Your task to perform on an android device: Clear the shopping cart on newegg. Search for "panasonic triple a" on newegg, select the first entry, add it to the cart, then select checkout. Image 0: 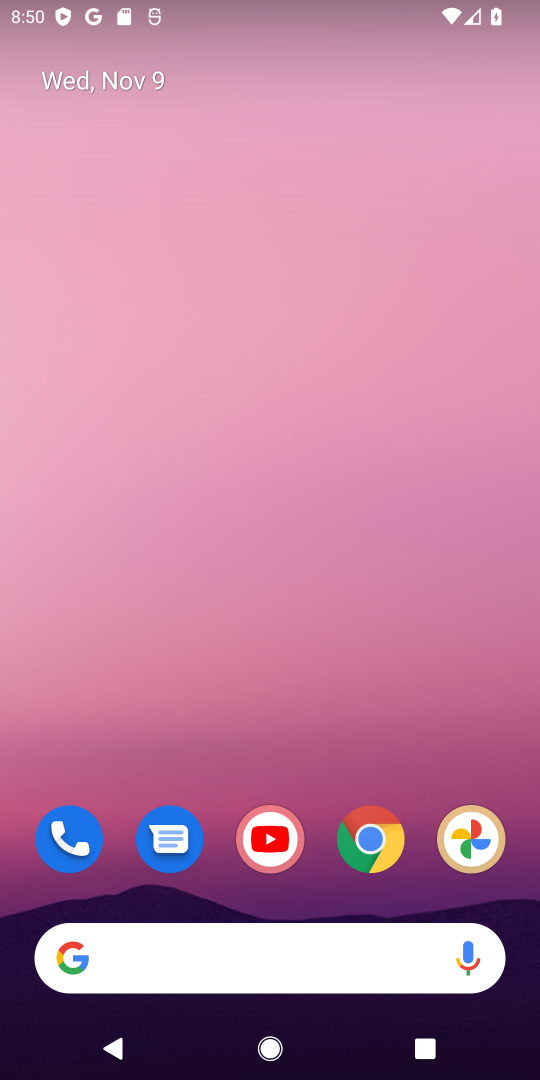
Step 0: drag from (95, 814) to (108, 171)
Your task to perform on an android device: Clear the shopping cart on newegg. Search for "panasonic triple a" on newegg, select the first entry, add it to the cart, then select checkout. Image 1: 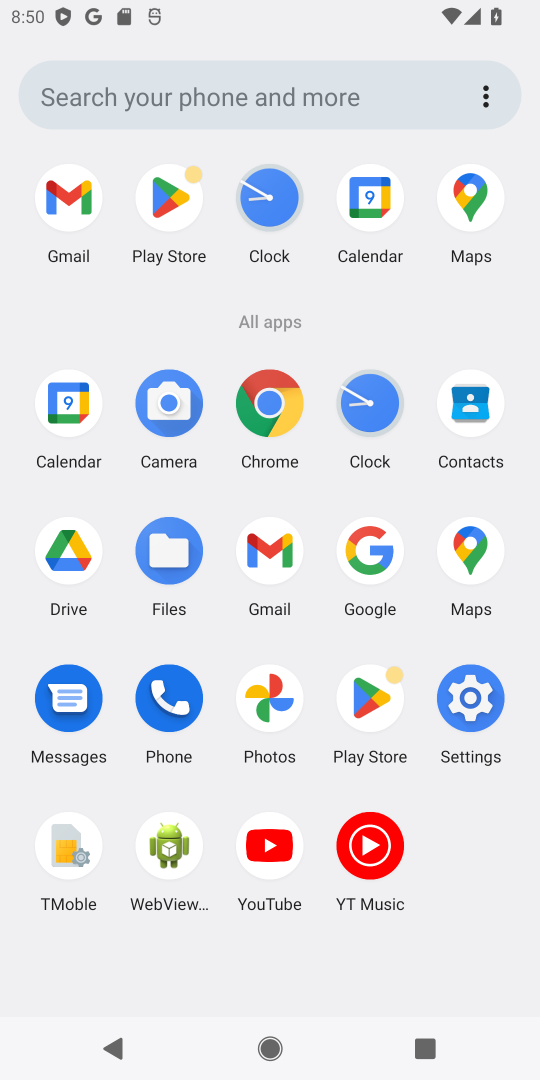
Step 1: click (289, 407)
Your task to perform on an android device: Clear the shopping cart on newegg. Search for "panasonic triple a" on newegg, select the first entry, add it to the cart, then select checkout. Image 2: 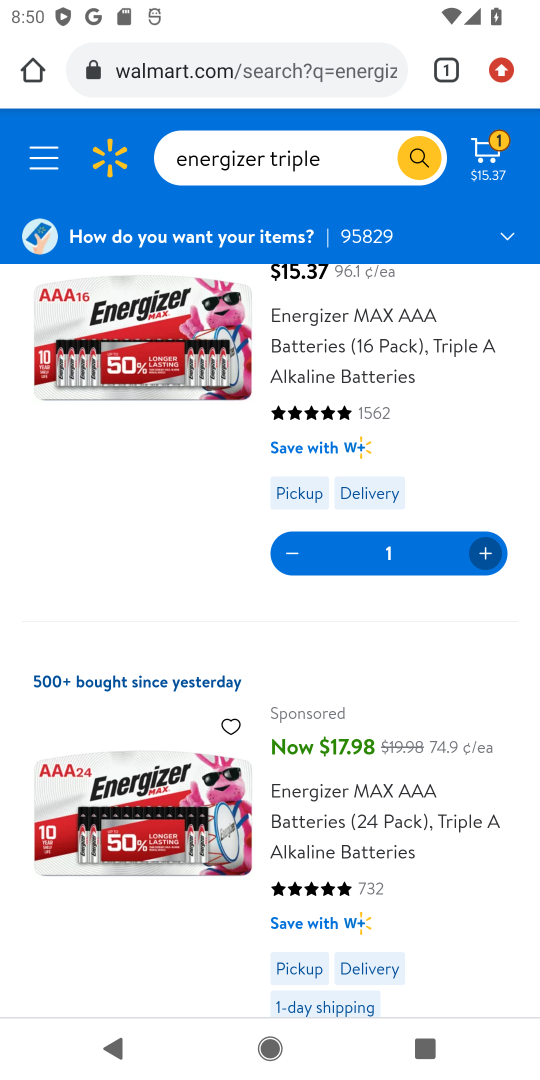
Step 2: click (214, 70)
Your task to perform on an android device: Clear the shopping cart on newegg. Search for "panasonic triple a" on newegg, select the first entry, add it to the cart, then select checkout. Image 3: 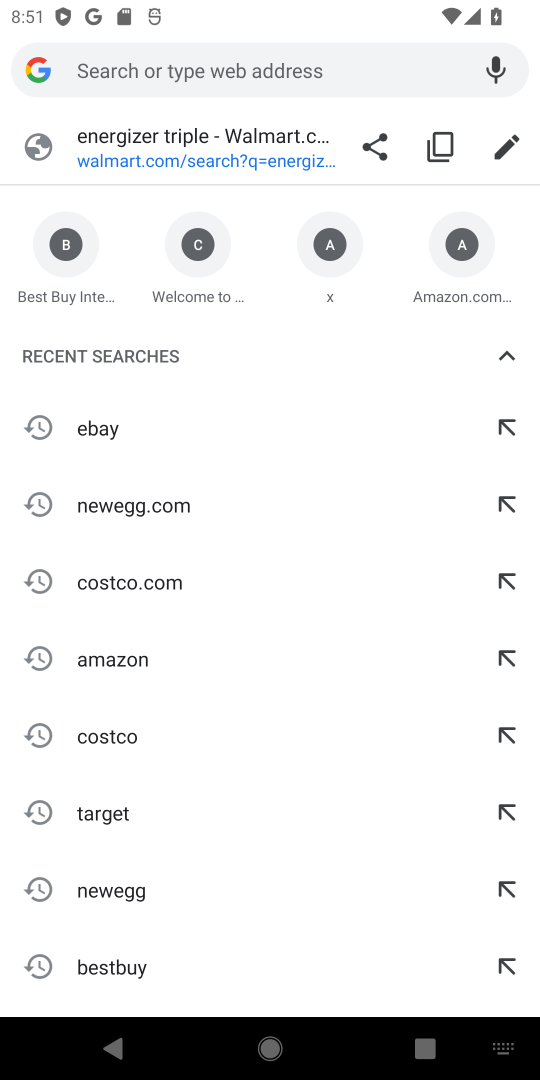
Step 3: type "newegg"
Your task to perform on an android device: Clear the shopping cart on newegg. Search for "panasonic triple a" on newegg, select the first entry, add it to the cart, then select checkout. Image 4: 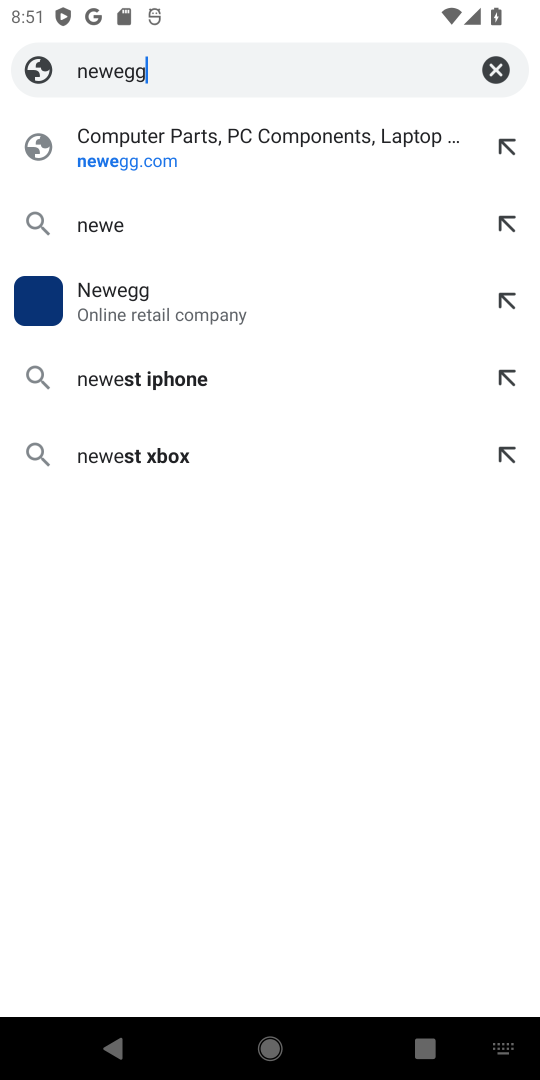
Step 4: press enter
Your task to perform on an android device: Clear the shopping cart on newegg. Search for "panasonic triple a" on newegg, select the first entry, add it to the cart, then select checkout. Image 5: 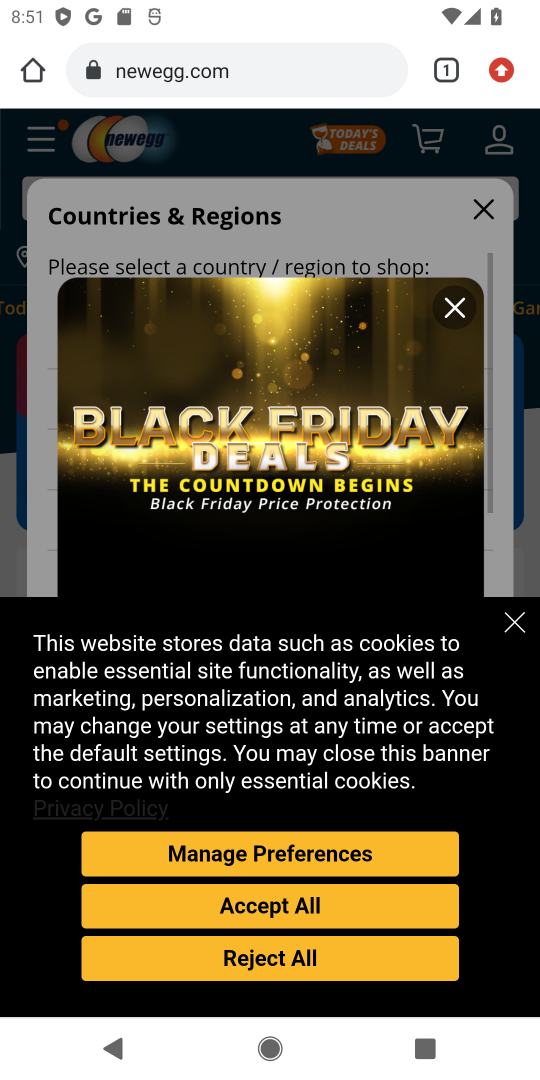
Step 5: click (261, 889)
Your task to perform on an android device: Clear the shopping cart on newegg. Search for "panasonic triple a" on newegg, select the first entry, add it to the cart, then select checkout. Image 6: 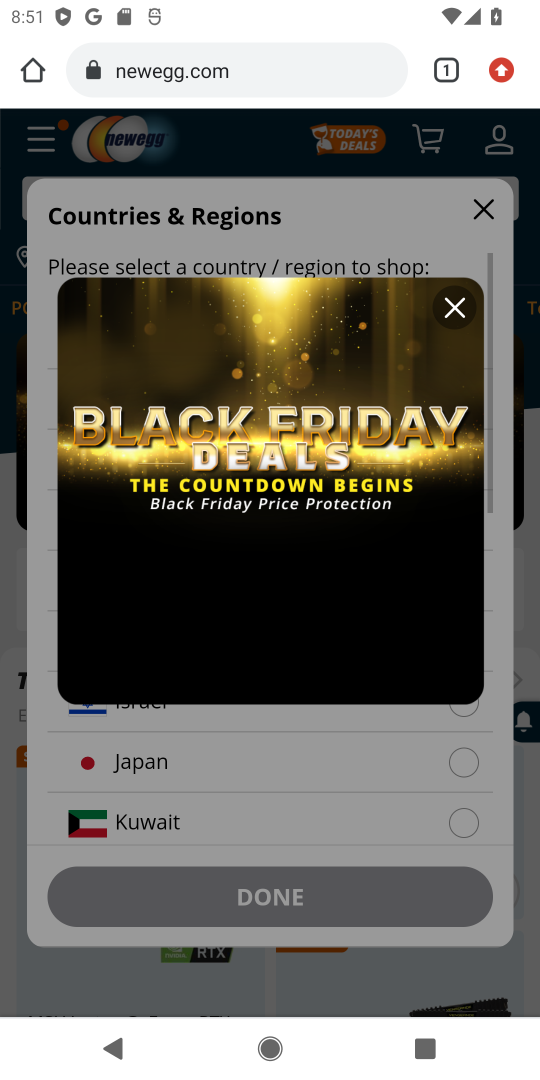
Step 6: click (448, 300)
Your task to perform on an android device: Clear the shopping cart on newegg. Search for "panasonic triple a" on newegg, select the first entry, add it to the cart, then select checkout. Image 7: 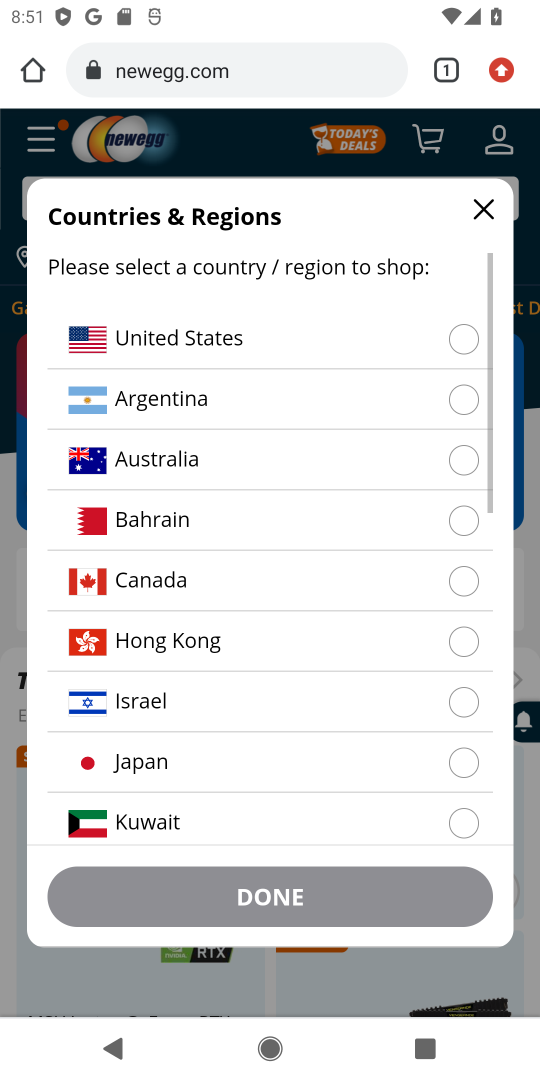
Step 7: click (203, 329)
Your task to perform on an android device: Clear the shopping cart on newegg. Search for "panasonic triple a" on newegg, select the first entry, add it to the cart, then select checkout. Image 8: 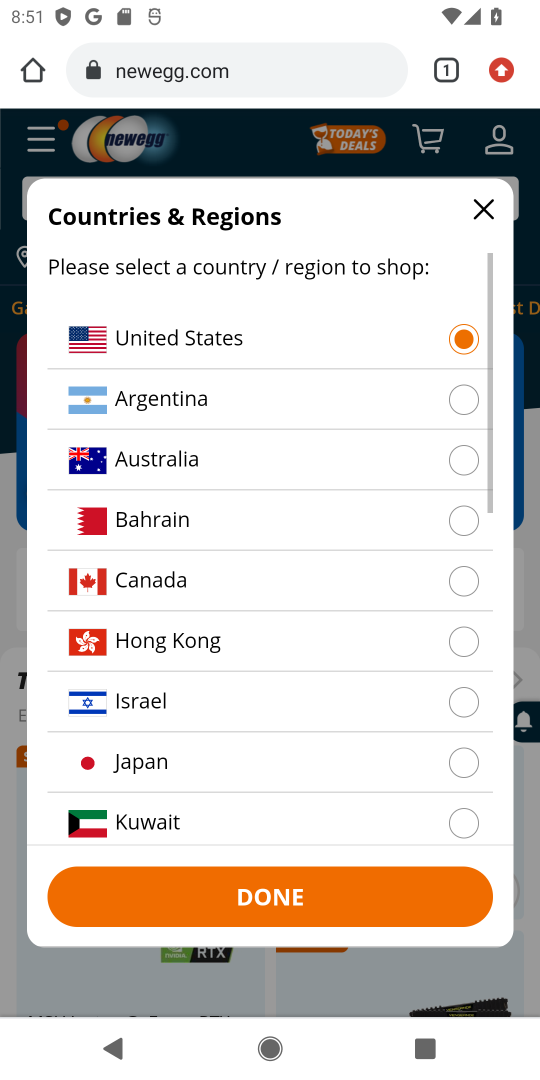
Step 8: click (309, 878)
Your task to perform on an android device: Clear the shopping cart on newegg. Search for "panasonic triple a" on newegg, select the first entry, add it to the cart, then select checkout. Image 9: 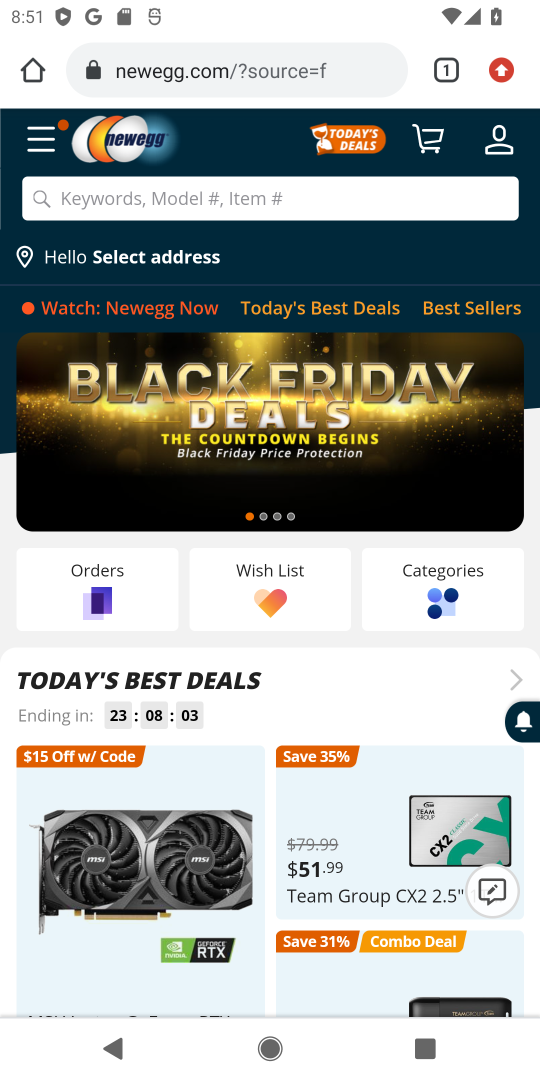
Step 9: click (176, 197)
Your task to perform on an android device: Clear the shopping cart on newegg. Search for "panasonic triple a" on newegg, select the first entry, add it to the cart, then select checkout. Image 10: 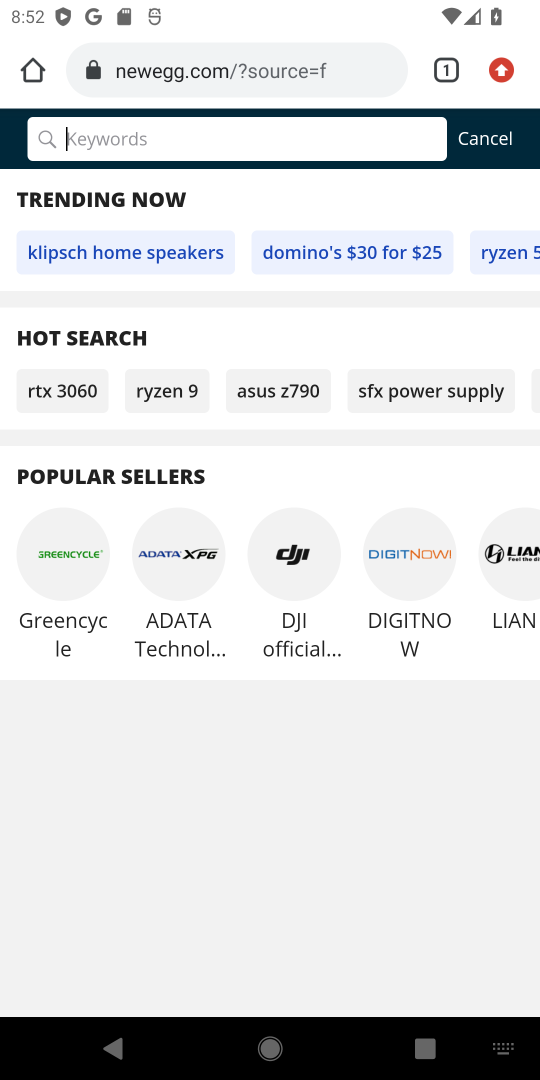
Step 10: type "panasonic triple a"
Your task to perform on an android device: Clear the shopping cart on newegg. Search for "panasonic triple a" on newegg, select the first entry, add it to the cart, then select checkout. Image 11: 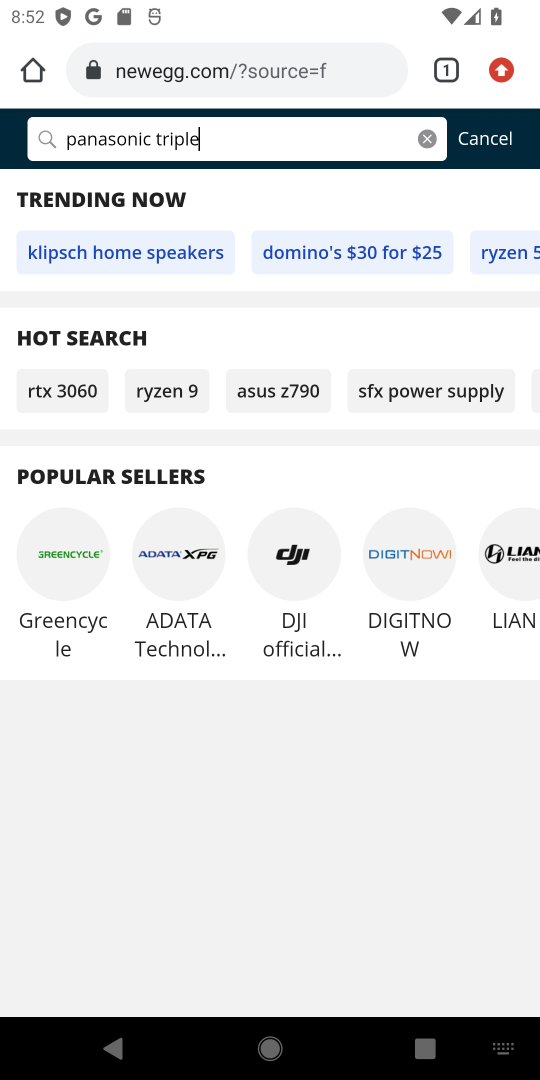
Step 11: press enter
Your task to perform on an android device: Clear the shopping cart on newegg. Search for "panasonic triple a" on newegg, select the first entry, add it to the cart, then select checkout. Image 12: 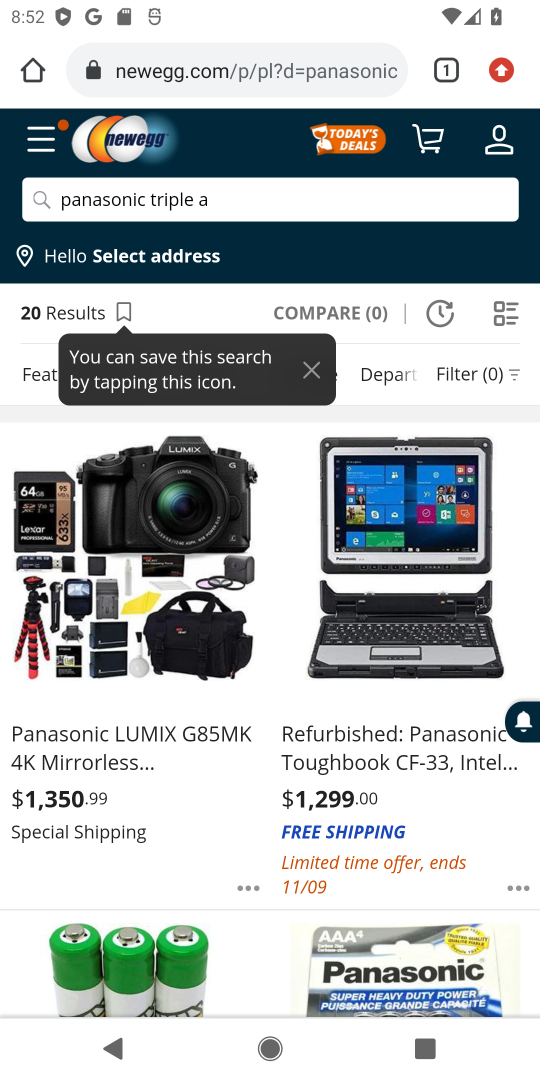
Step 12: click (112, 530)
Your task to perform on an android device: Clear the shopping cart on newegg. Search for "panasonic triple a" on newegg, select the first entry, add it to the cart, then select checkout. Image 13: 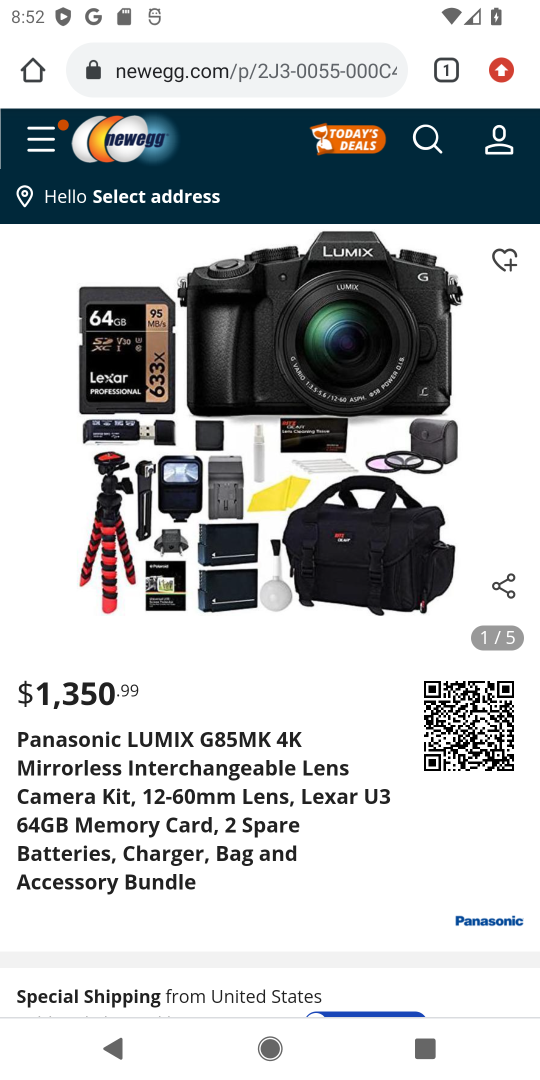
Step 13: click (269, 990)
Your task to perform on an android device: Clear the shopping cart on newegg. Search for "panasonic triple a" on newegg, select the first entry, add it to the cart, then select checkout. Image 14: 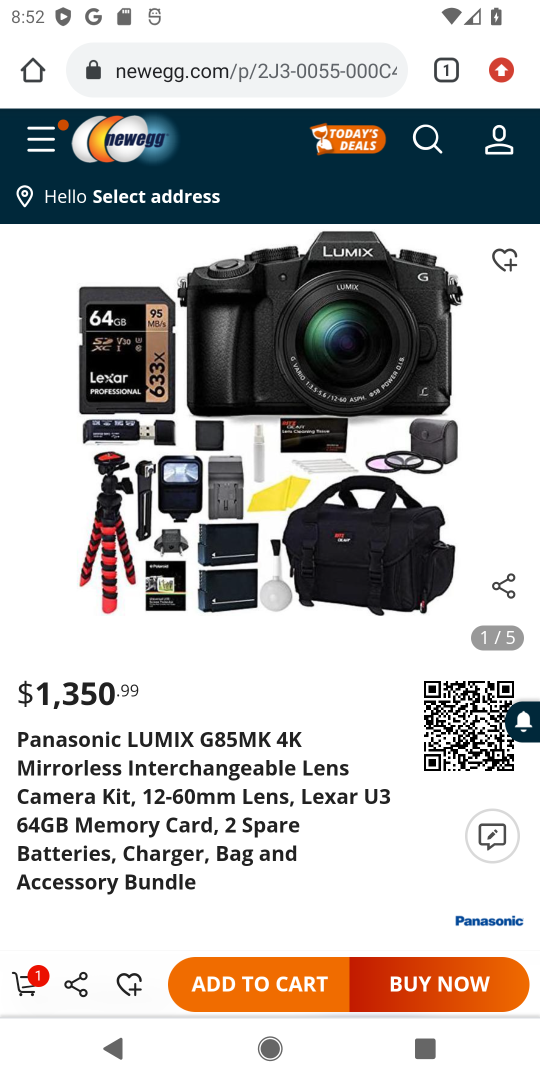
Step 14: click (295, 979)
Your task to perform on an android device: Clear the shopping cart on newegg. Search for "panasonic triple a" on newegg, select the first entry, add it to the cart, then select checkout. Image 15: 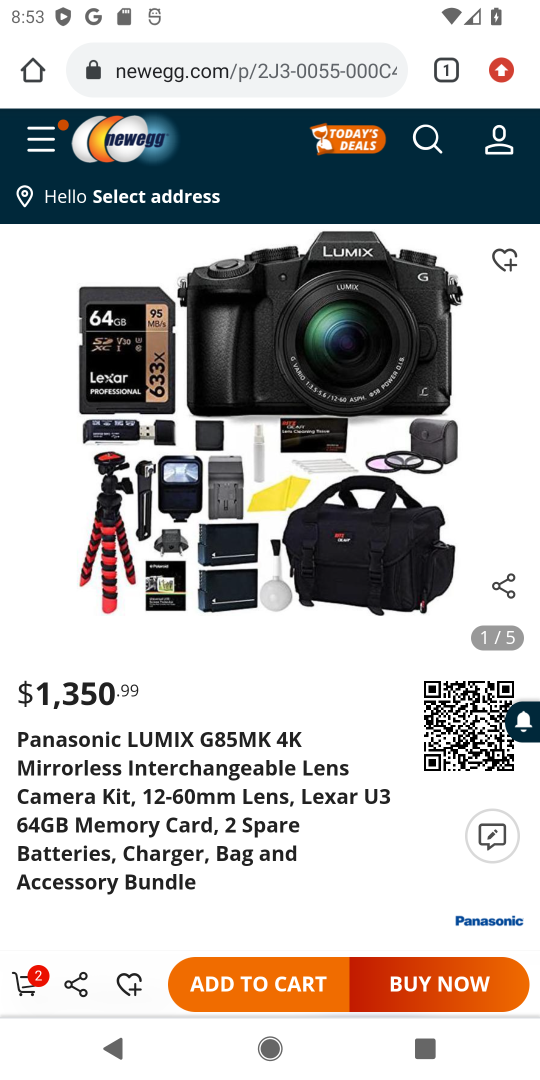
Step 15: click (276, 985)
Your task to perform on an android device: Clear the shopping cart on newegg. Search for "panasonic triple a" on newegg, select the first entry, add it to the cart, then select checkout. Image 16: 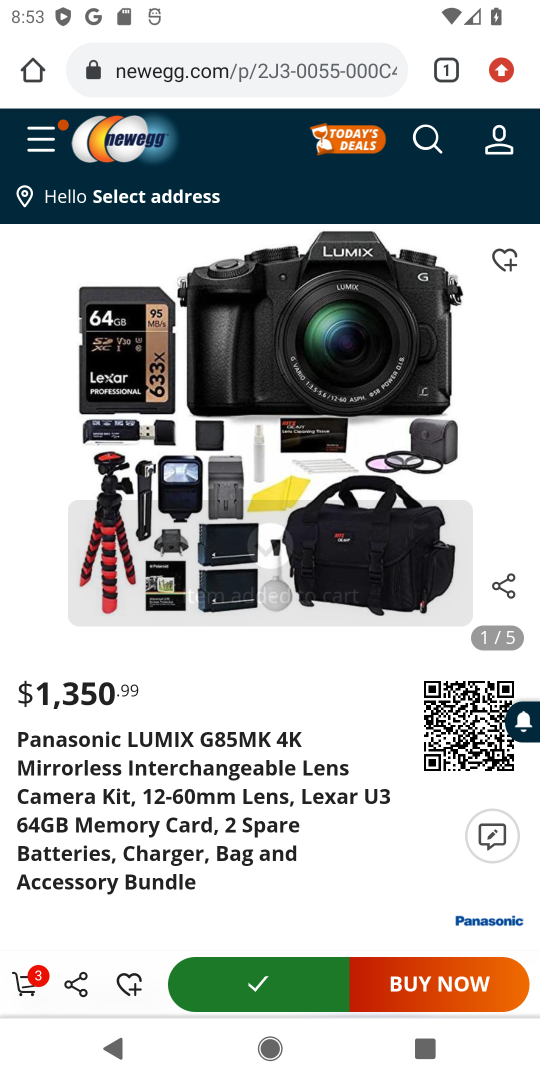
Step 16: drag from (270, 854) to (192, 389)
Your task to perform on an android device: Clear the shopping cart on newegg. Search for "panasonic triple a" on newegg, select the first entry, add it to the cart, then select checkout. Image 17: 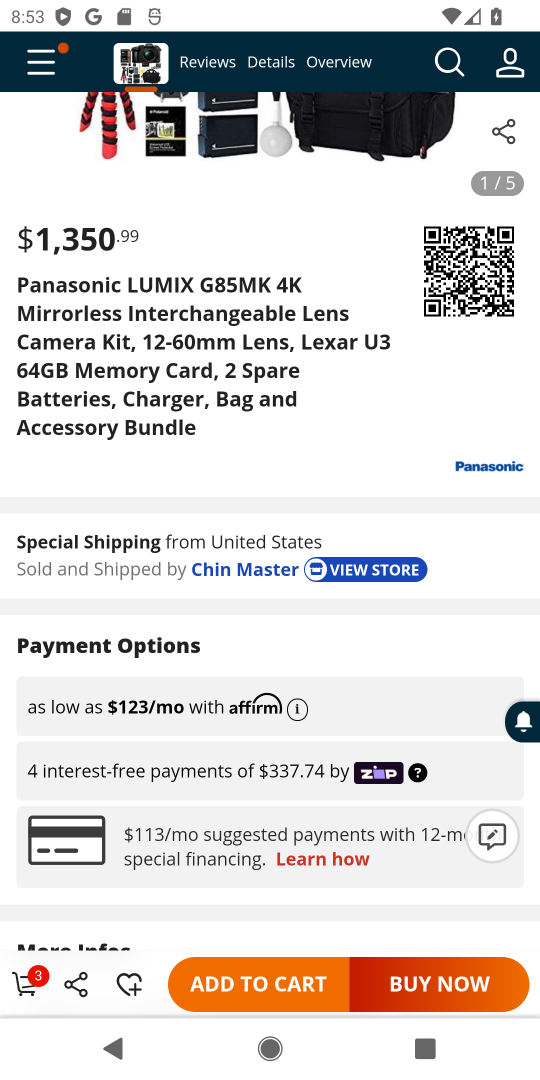
Step 17: drag from (235, 805) to (233, 422)
Your task to perform on an android device: Clear the shopping cart on newegg. Search for "panasonic triple a" on newegg, select the first entry, add it to the cart, then select checkout. Image 18: 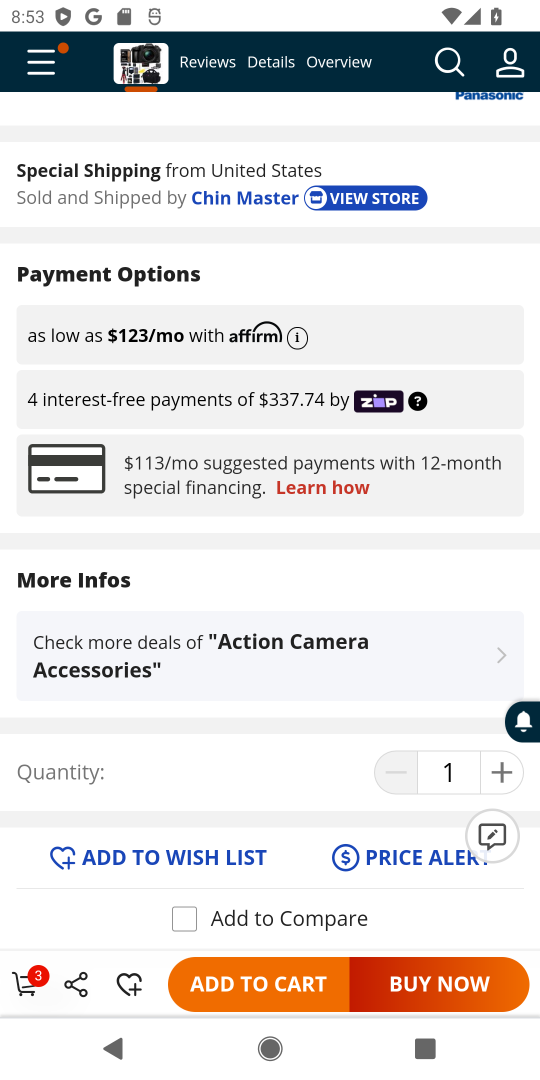
Step 18: click (33, 968)
Your task to perform on an android device: Clear the shopping cart on newegg. Search for "panasonic triple a" on newegg, select the first entry, add it to the cart, then select checkout. Image 19: 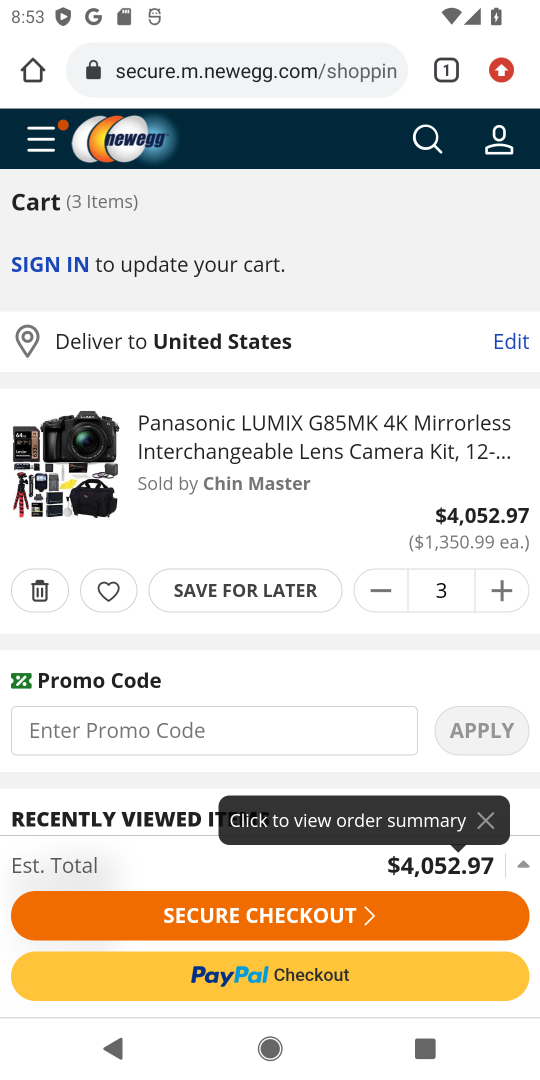
Step 19: click (265, 864)
Your task to perform on an android device: Clear the shopping cart on newegg. Search for "panasonic triple a" on newegg, select the first entry, add it to the cart, then select checkout. Image 20: 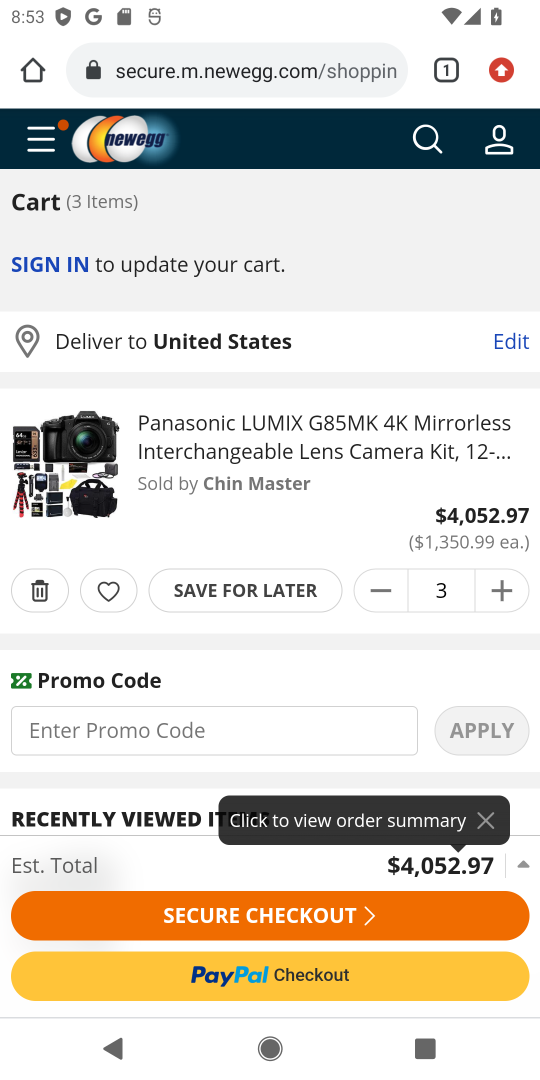
Step 20: click (287, 917)
Your task to perform on an android device: Clear the shopping cart on newegg. Search for "panasonic triple a" on newegg, select the first entry, add it to the cart, then select checkout. Image 21: 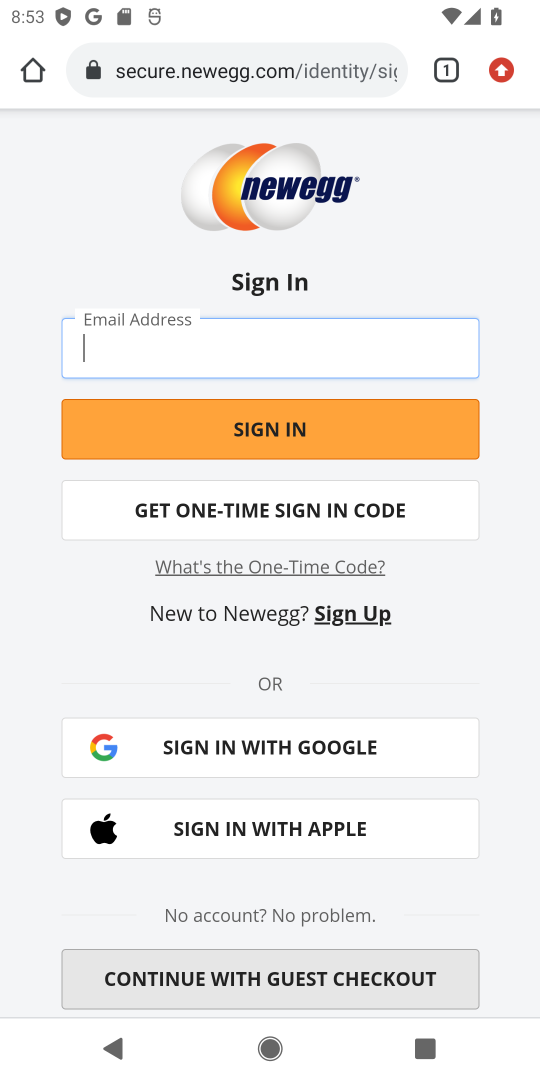
Step 21: task complete